Your task to perform on an android device: Open calendar and show me the third week of next month Image 0: 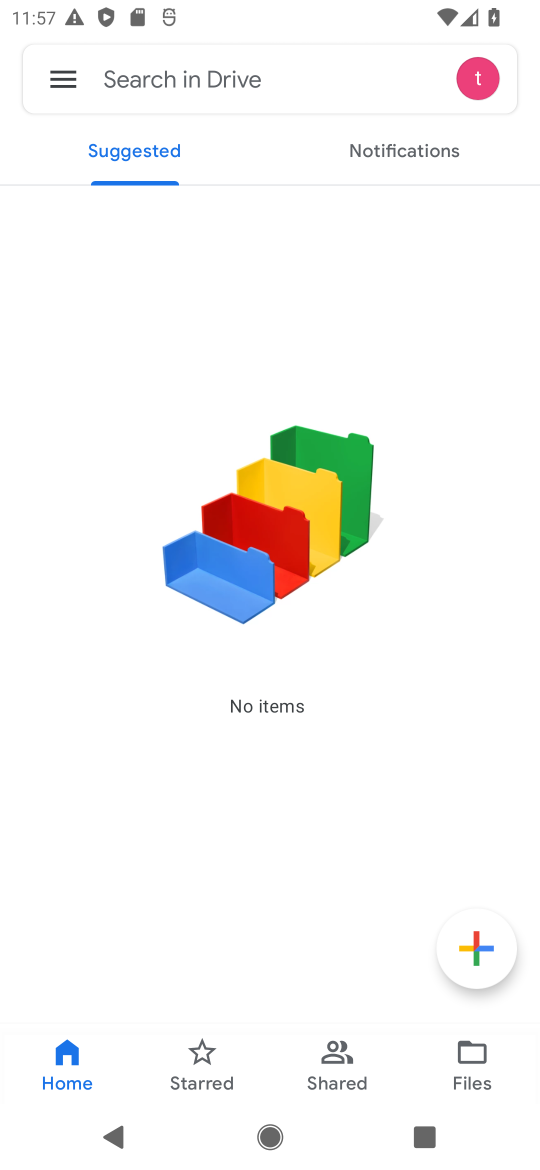
Step 0: press back button
Your task to perform on an android device: Open calendar and show me the third week of next month Image 1: 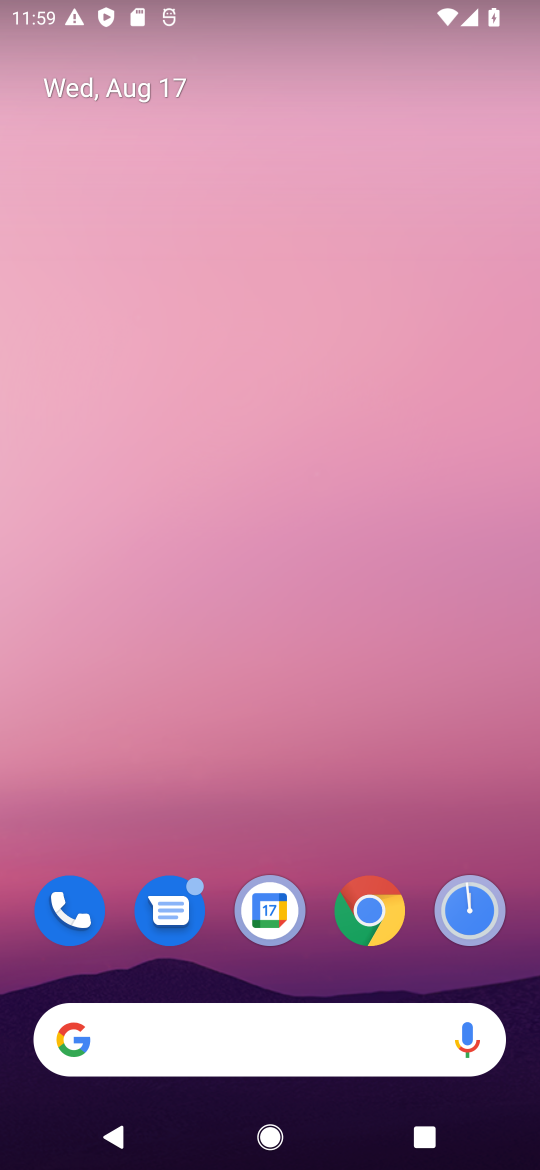
Step 1: click (254, 902)
Your task to perform on an android device: Open calendar and show me the third week of next month Image 2: 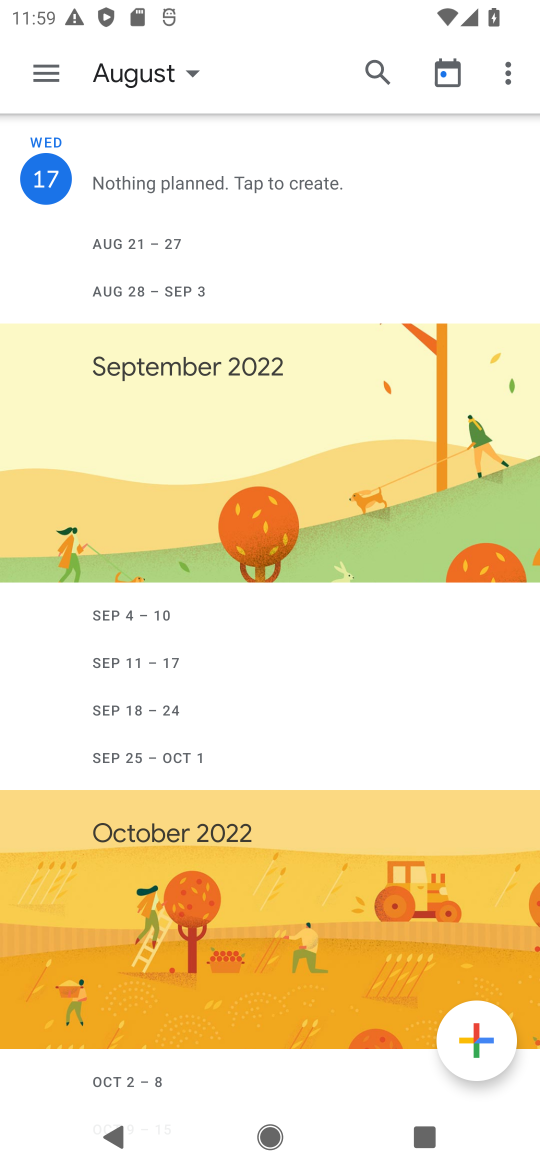
Step 2: click (177, 70)
Your task to perform on an android device: Open calendar and show me the third week of next month Image 3: 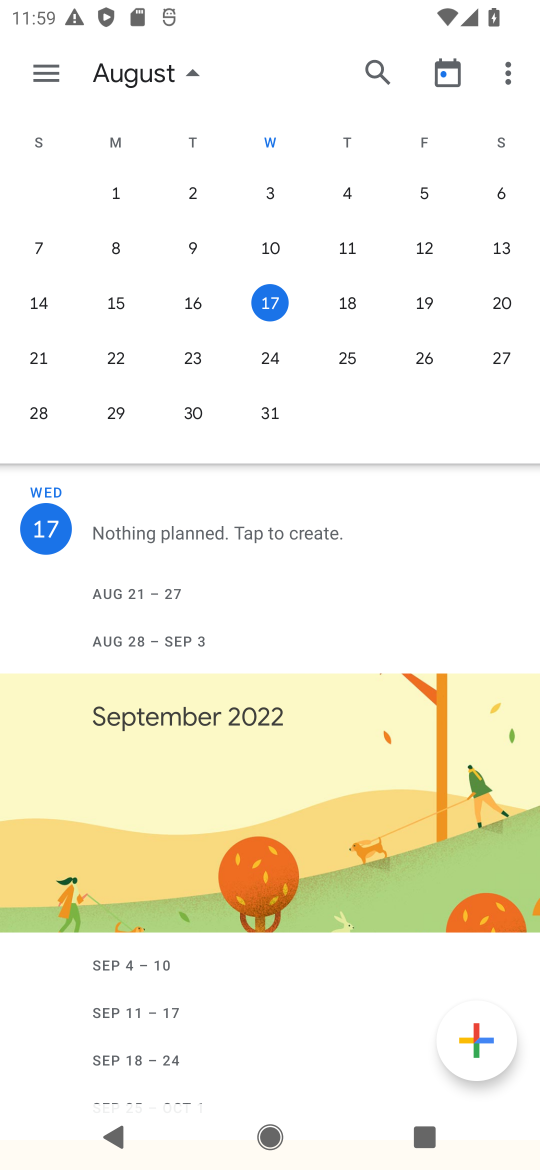
Step 3: drag from (507, 245) to (3, 300)
Your task to perform on an android device: Open calendar and show me the third week of next month Image 4: 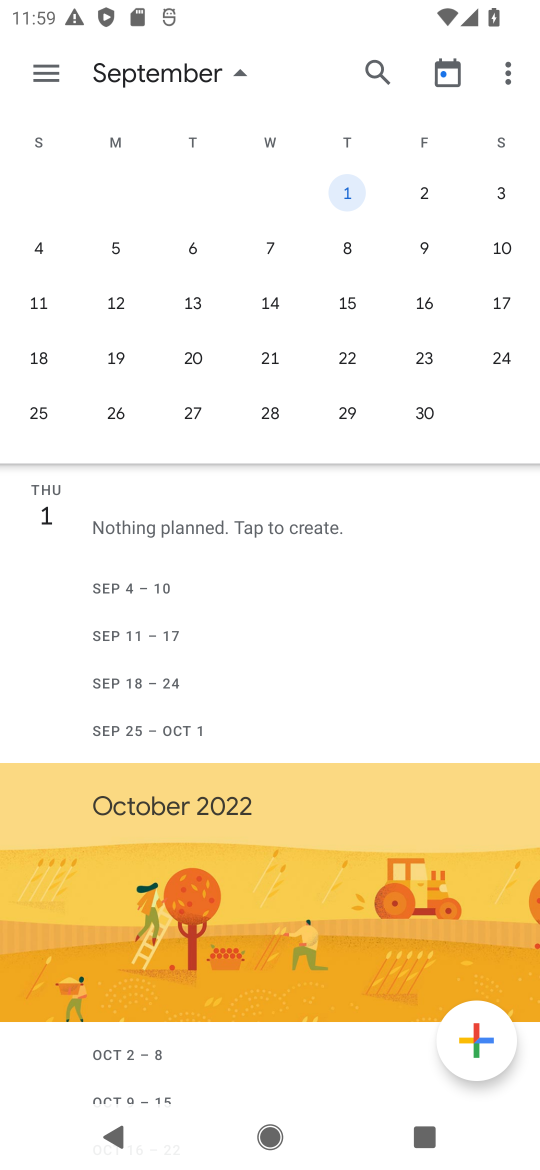
Step 4: click (108, 351)
Your task to perform on an android device: Open calendar and show me the third week of next month Image 5: 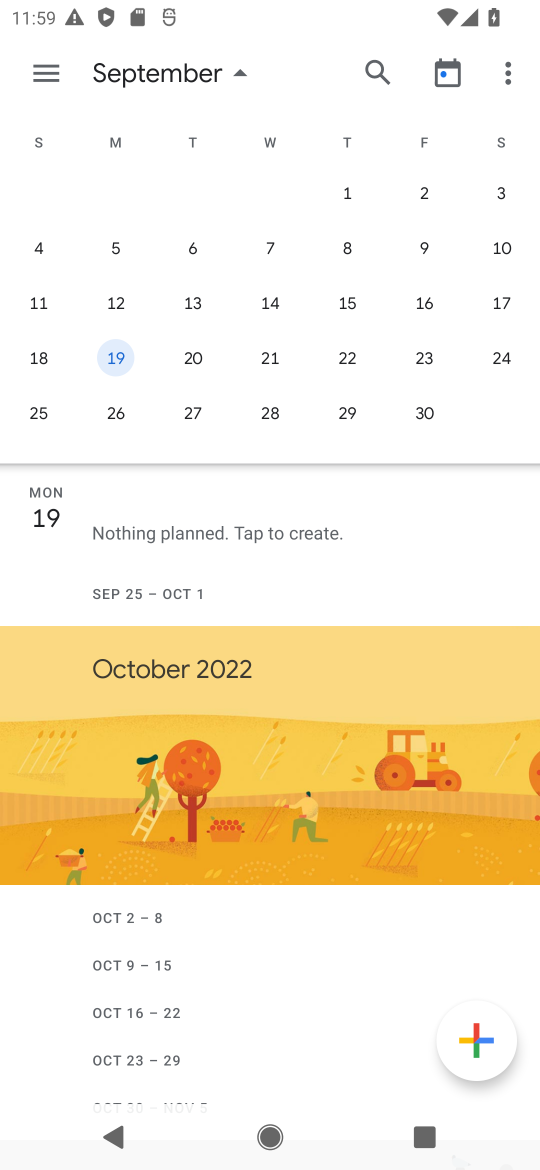
Step 5: task complete